Your task to perform on an android device: find photos in the google photos app Image 0: 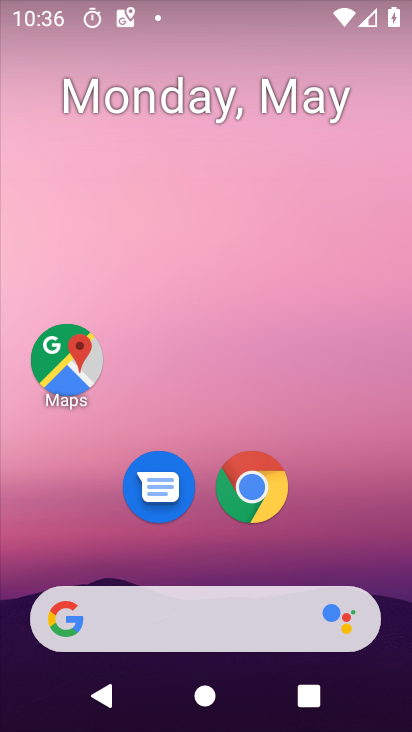
Step 0: drag from (308, 540) to (321, 74)
Your task to perform on an android device: find photos in the google photos app Image 1: 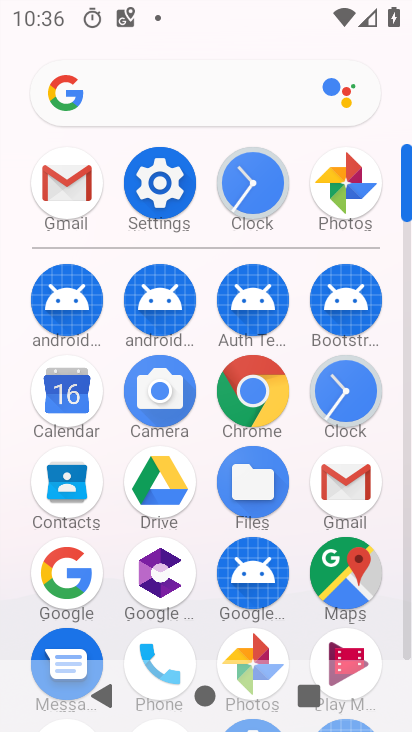
Step 1: click (251, 638)
Your task to perform on an android device: find photos in the google photos app Image 2: 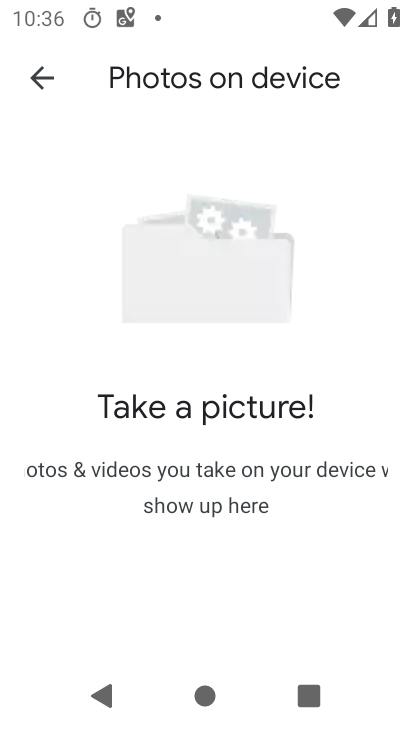
Step 2: click (42, 84)
Your task to perform on an android device: find photos in the google photos app Image 3: 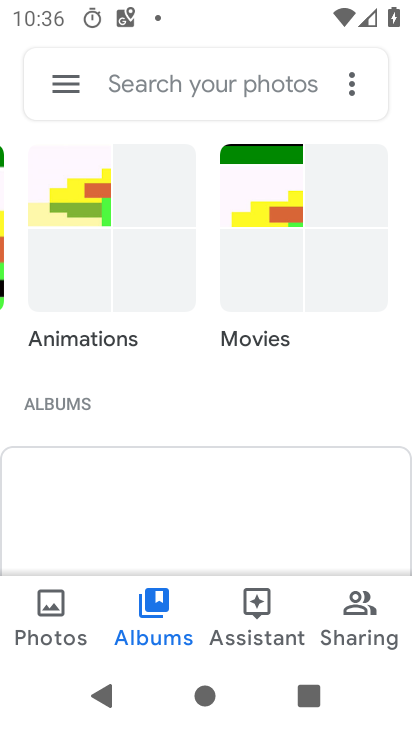
Step 3: click (52, 622)
Your task to perform on an android device: find photos in the google photos app Image 4: 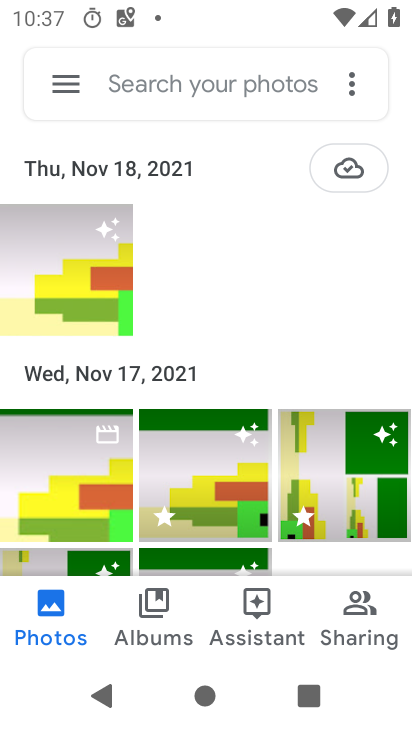
Step 4: task complete